Your task to perform on an android device: toggle improve location accuracy Image 0: 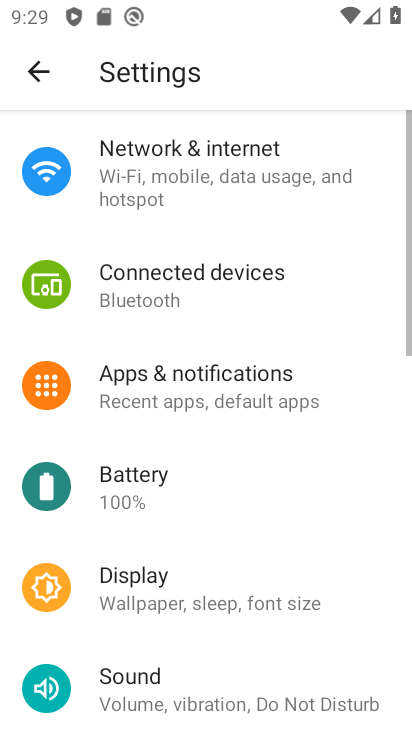
Step 0: press home button
Your task to perform on an android device: toggle improve location accuracy Image 1: 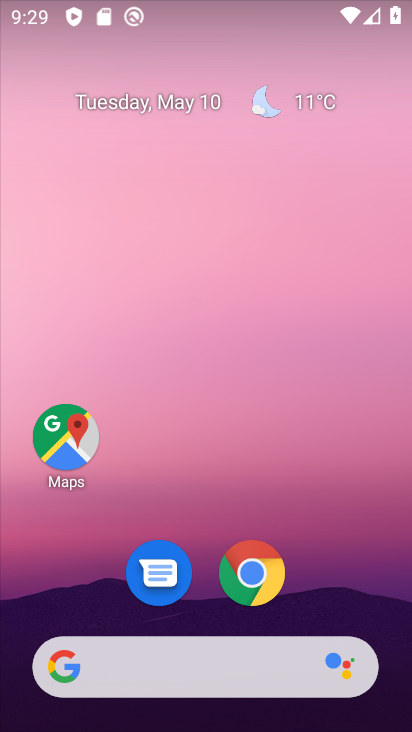
Step 1: drag from (321, 579) to (315, 114)
Your task to perform on an android device: toggle improve location accuracy Image 2: 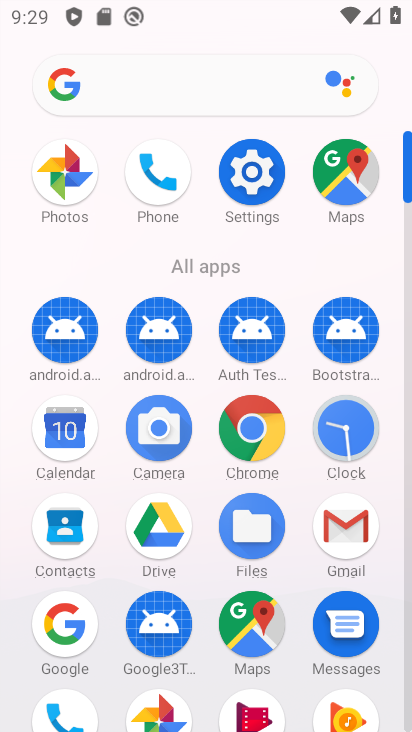
Step 2: click (273, 177)
Your task to perform on an android device: toggle improve location accuracy Image 3: 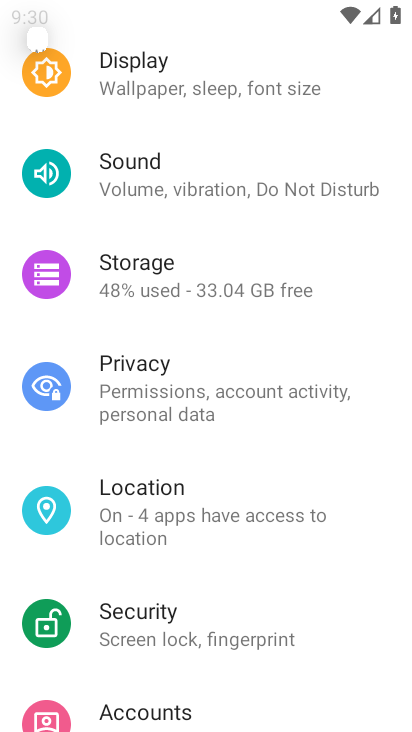
Step 3: click (214, 513)
Your task to perform on an android device: toggle improve location accuracy Image 4: 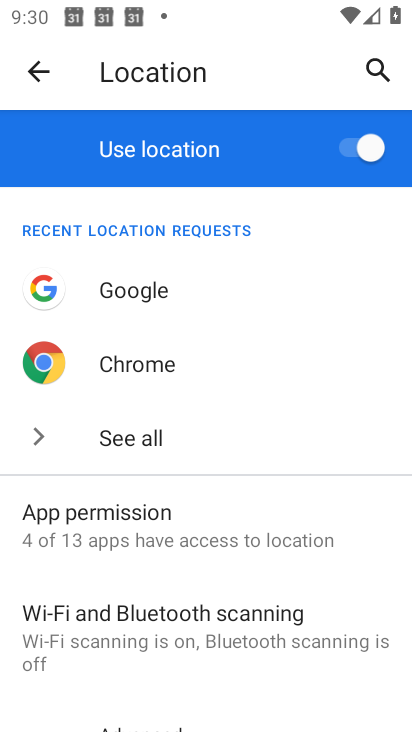
Step 4: drag from (166, 555) to (191, 243)
Your task to perform on an android device: toggle improve location accuracy Image 5: 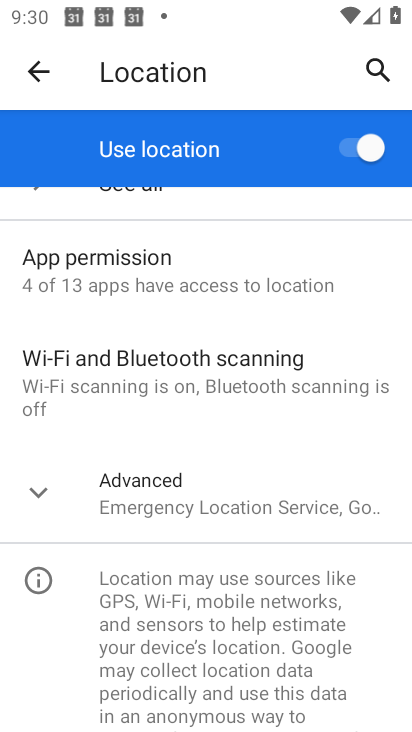
Step 5: click (47, 495)
Your task to perform on an android device: toggle improve location accuracy Image 6: 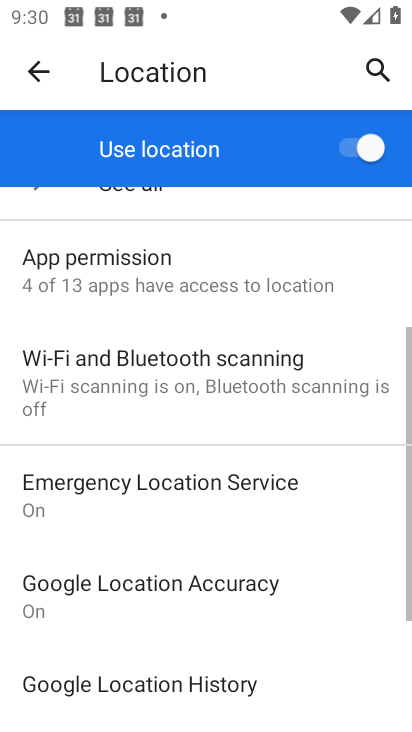
Step 6: drag from (262, 644) to (277, 444)
Your task to perform on an android device: toggle improve location accuracy Image 7: 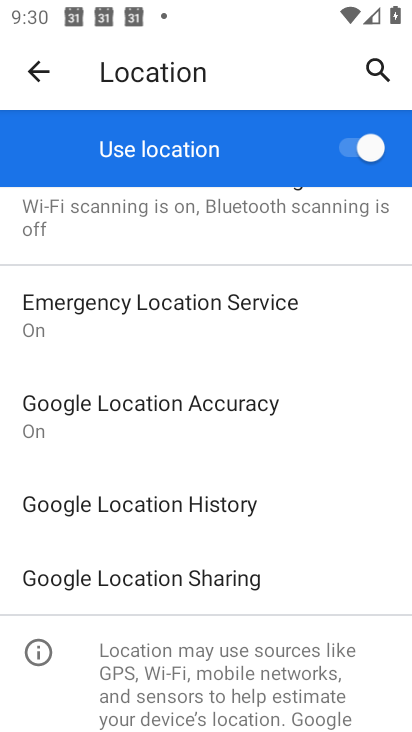
Step 7: click (224, 415)
Your task to perform on an android device: toggle improve location accuracy Image 8: 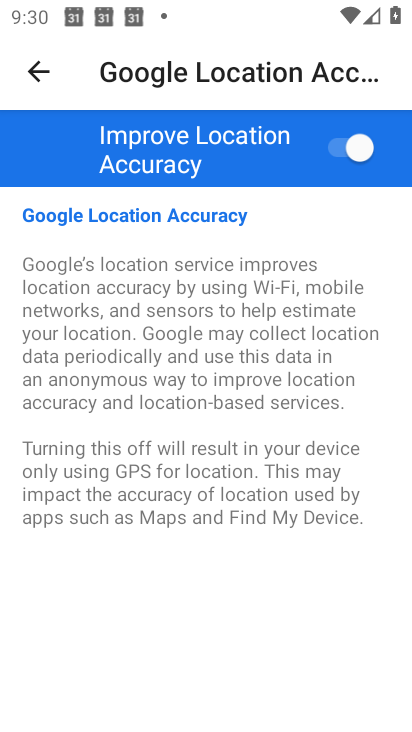
Step 8: click (355, 152)
Your task to perform on an android device: toggle improve location accuracy Image 9: 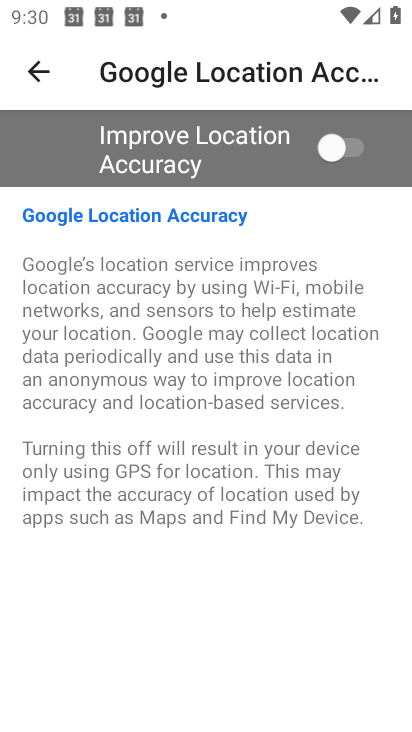
Step 9: task complete